Your task to perform on an android device: open device folders in google photos Image 0: 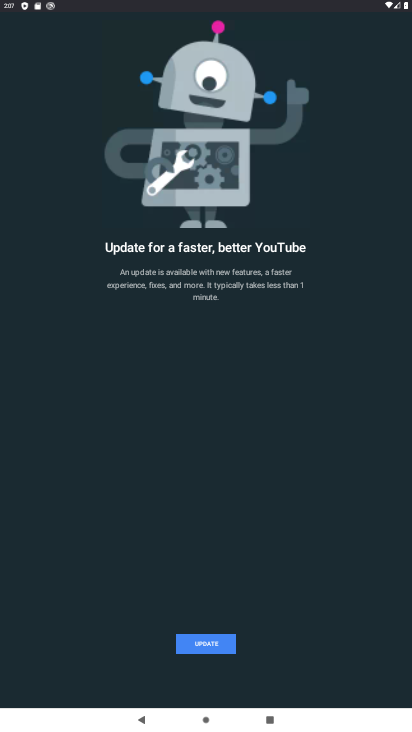
Step 0: press home button
Your task to perform on an android device: open device folders in google photos Image 1: 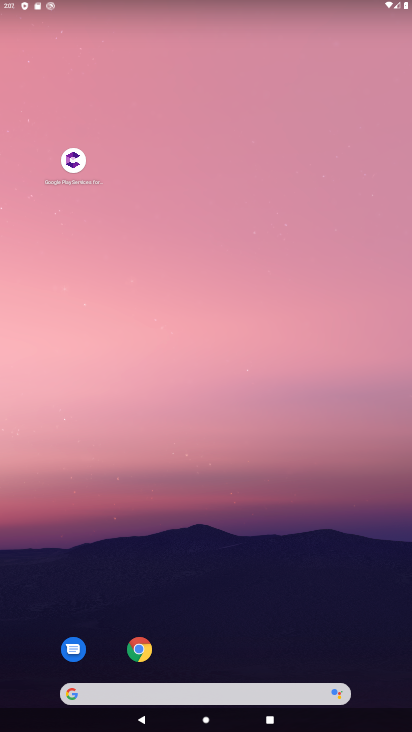
Step 1: drag from (237, 639) to (243, 44)
Your task to perform on an android device: open device folders in google photos Image 2: 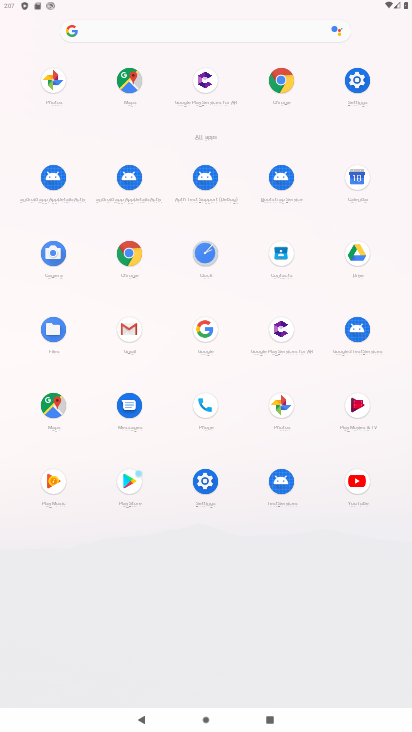
Step 2: click (289, 414)
Your task to perform on an android device: open device folders in google photos Image 3: 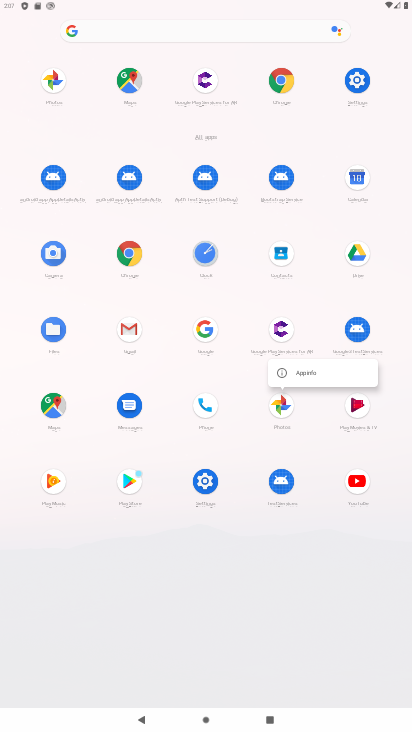
Step 3: click (280, 405)
Your task to perform on an android device: open device folders in google photos Image 4: 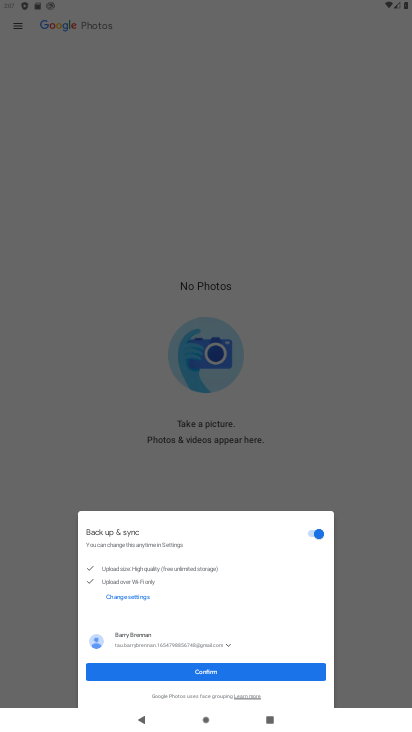
Step 4: click (228, 676)
Your task to perform on an android device: open device folders in google photos Image 5: 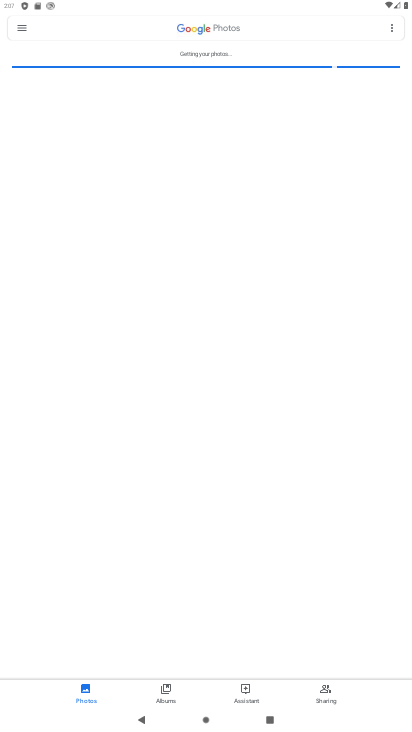
Step 5: click (230, 674)
Your task to perform on an android device: open device folders in google photos Image 6: 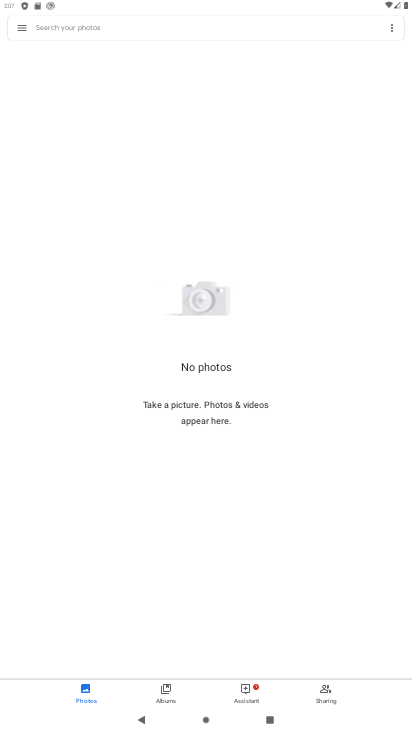
Step 6: click (17, 21)
Your task to perform on an android device: open device folders in google photos Image 7: 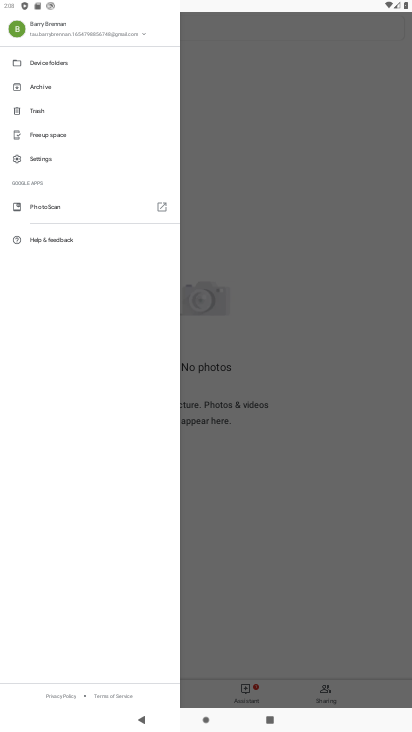
Step 7: click (47, 64)
Your task to perform on an android device: open device folders in google photos Image 8: 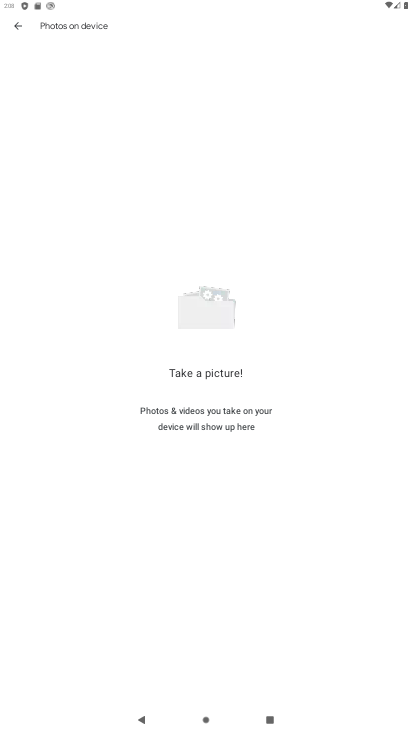
Step 8: task complete